Your task to perform on an android device: Clear all items from cart on bestbuy.com. Image 0: 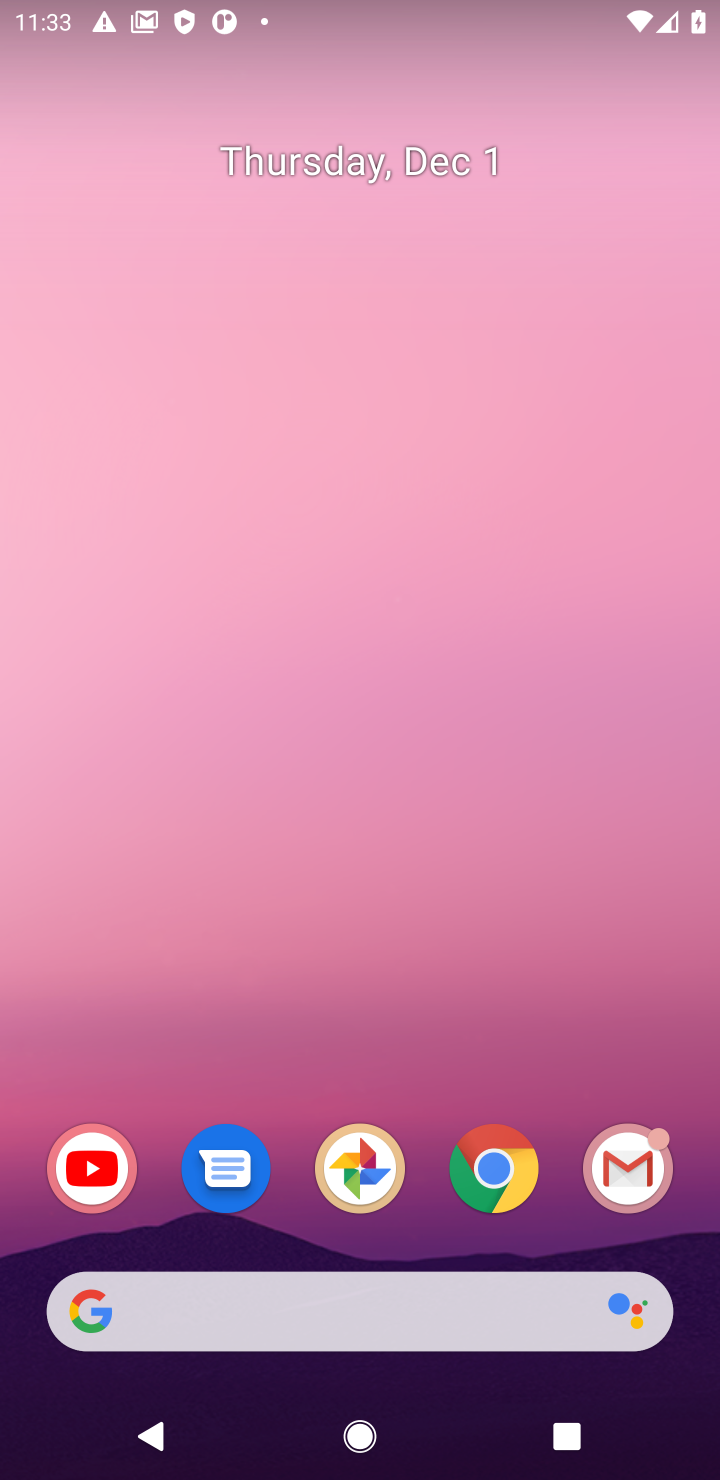
Step 0: click (509, 1170)
Your task to perform on an android device: Clear all items from cart on bestbuy.com. Image 1: 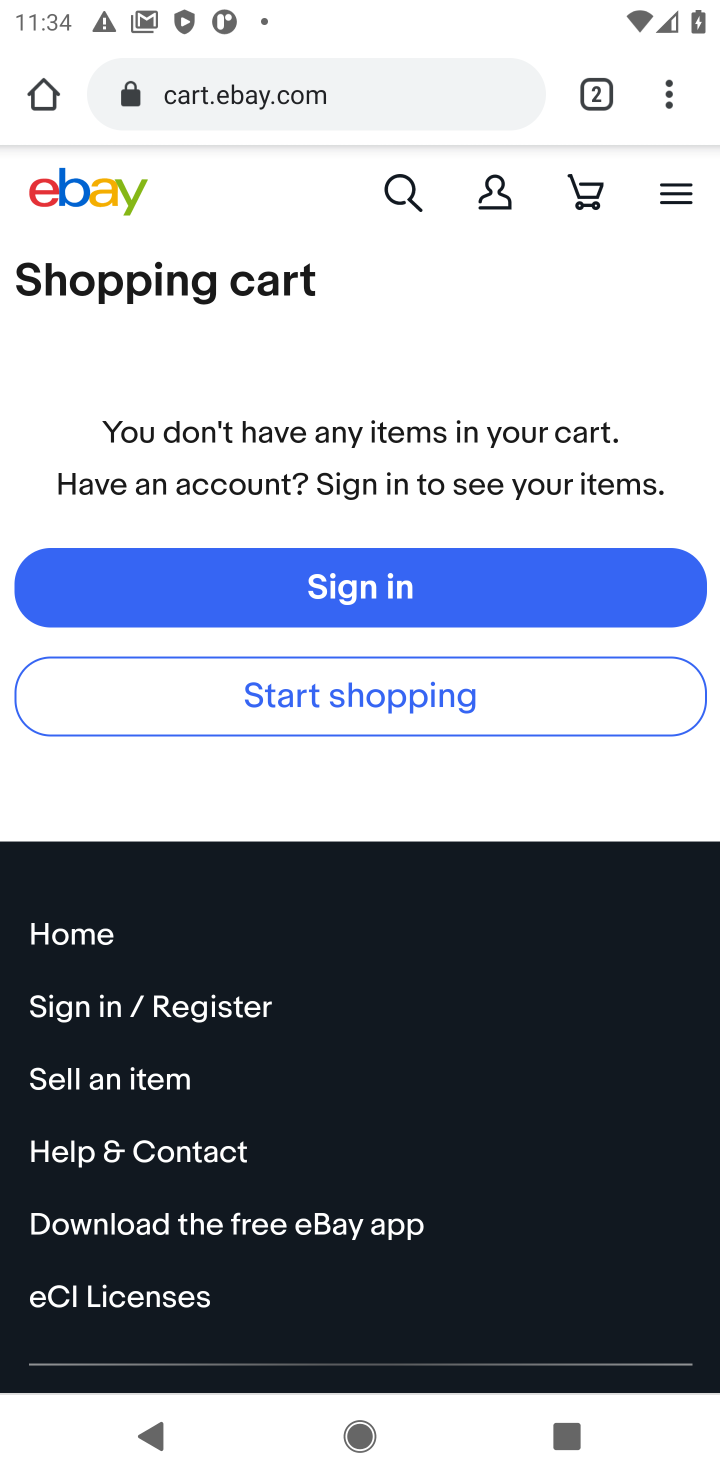
Step 1: click (246, 98)
Your task to perform on an android device: Clear all items from cart on bestbuy.com. Image 2: 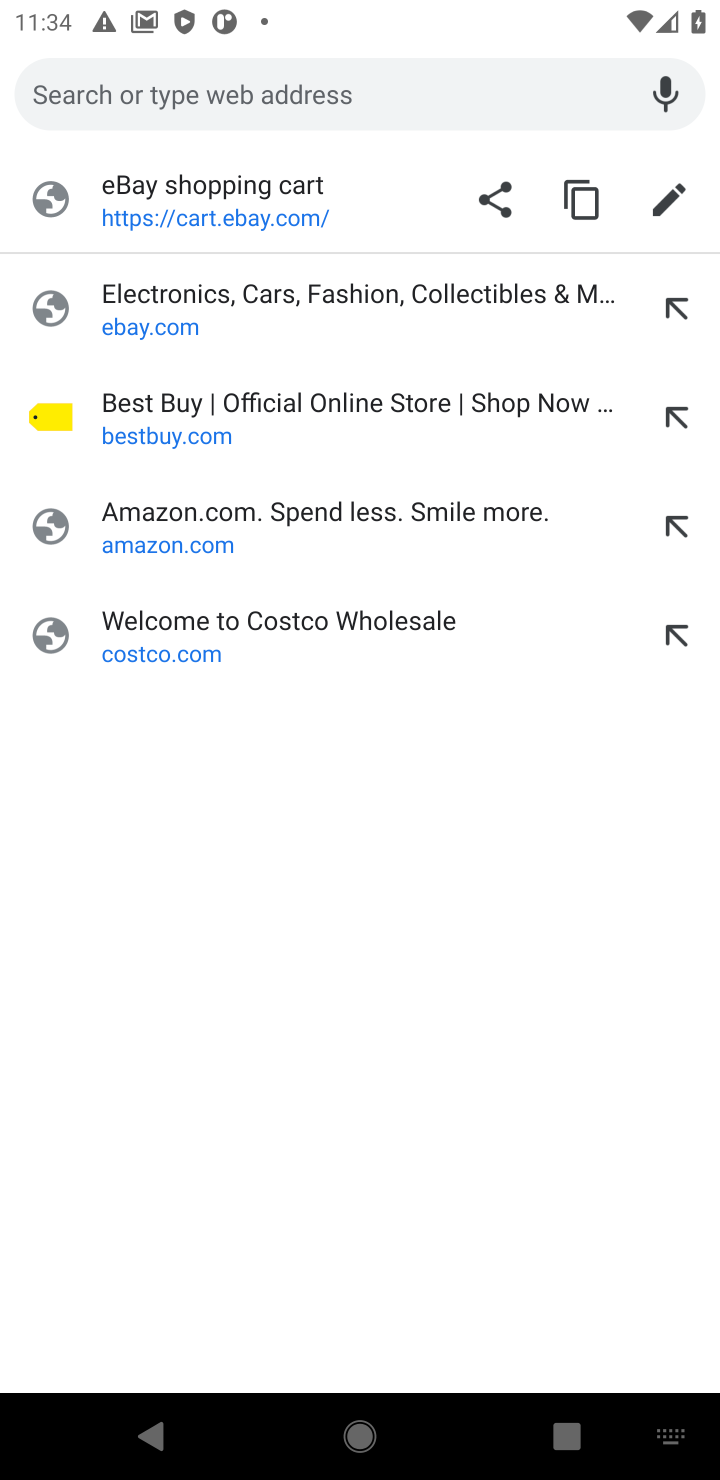
Step 2: click (154, 397)
Your task to perform on an android device: Clear all items from cart on bestbuy.com. Image 3: 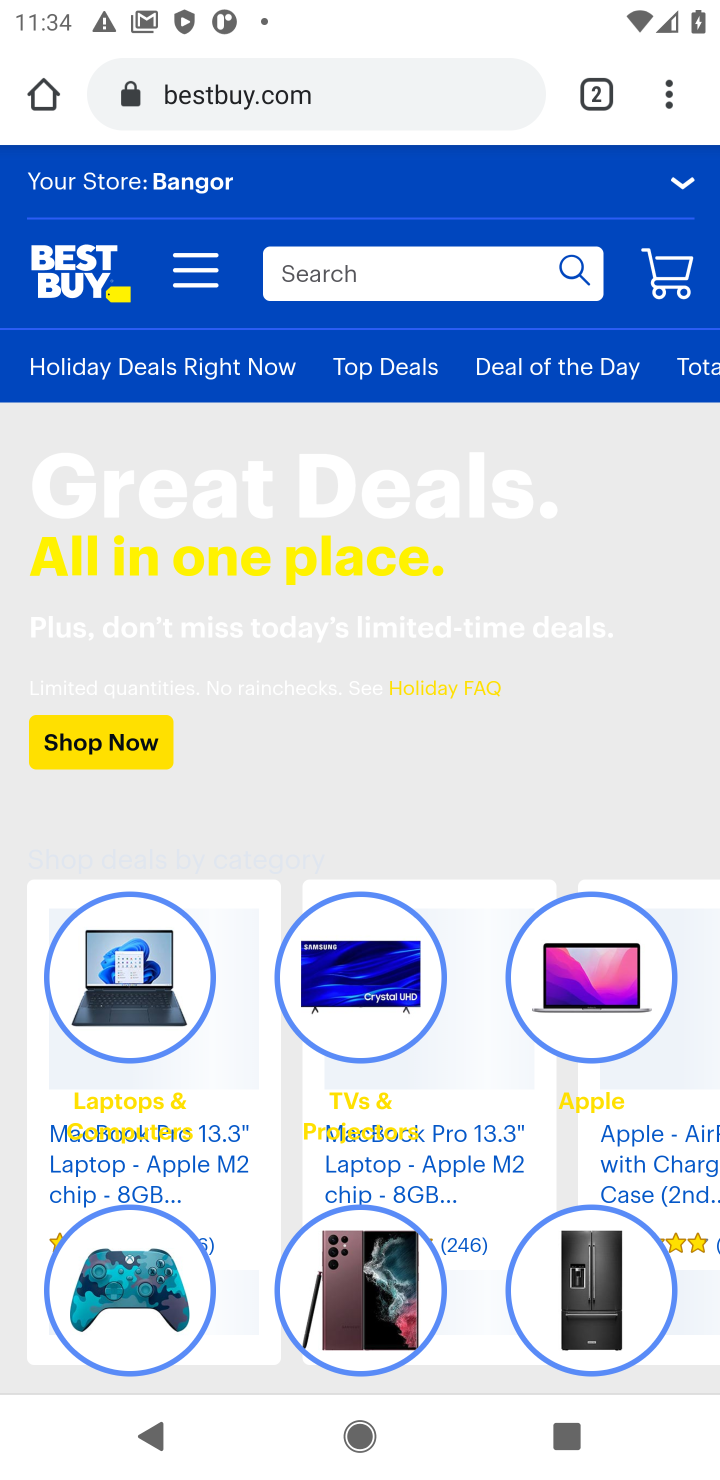
Step 3: click (678, 272)
Your task to perform on an android device: Clear all items from cart on bestbuy.com. Image 4: 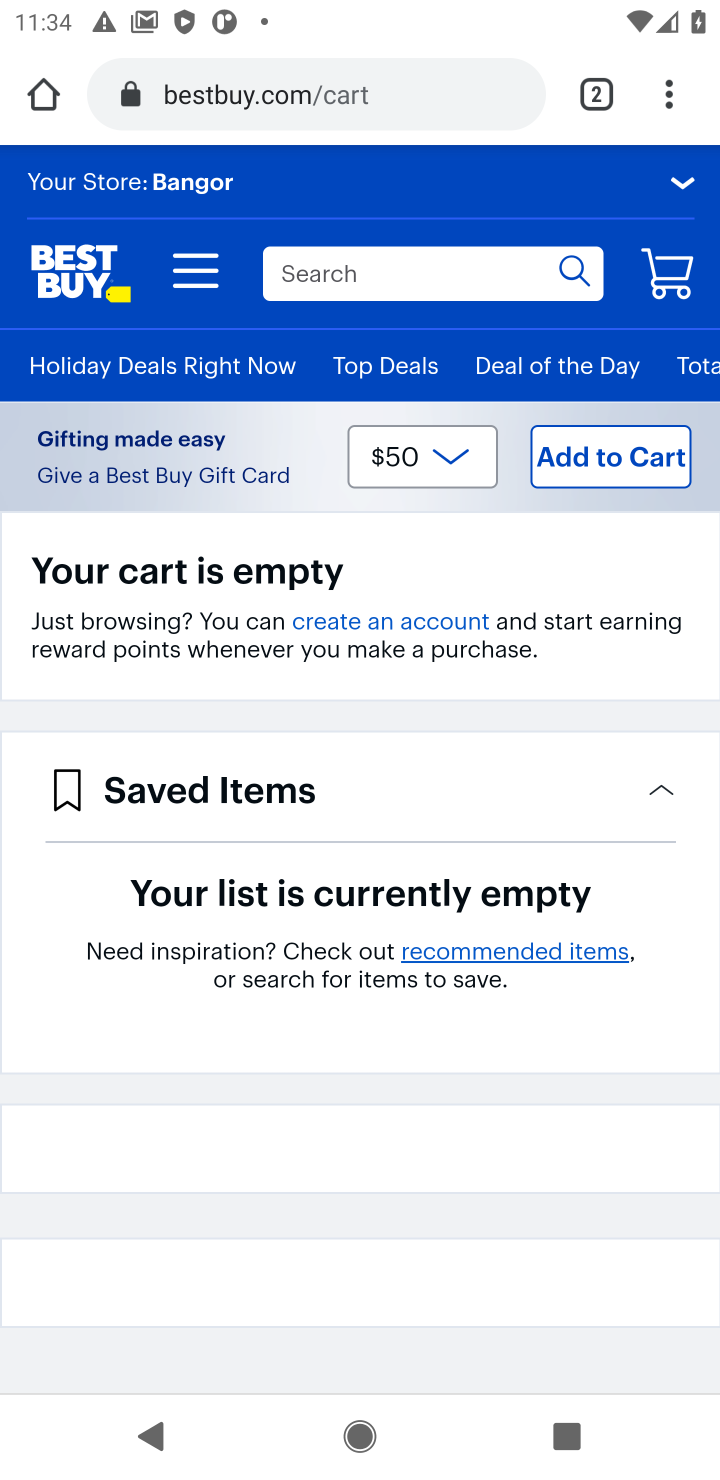
Step 4: task complete